Your task to perform on an android device: What is the recent news? Image 0: 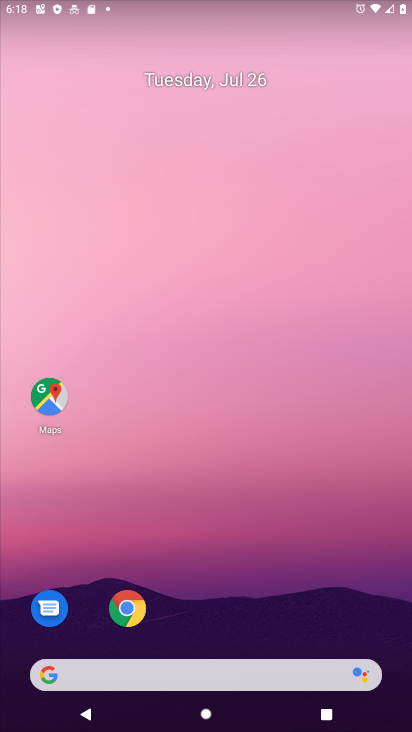
Step 0: press home button
Your task to perform on an android device: What is the recent news? Image 1: 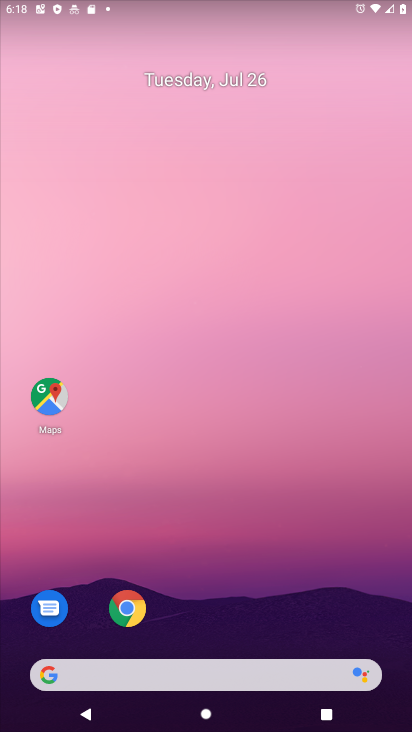
Step 1: click (55, 675)
Your task to perform on an android device: What is the recent news? Image 2: 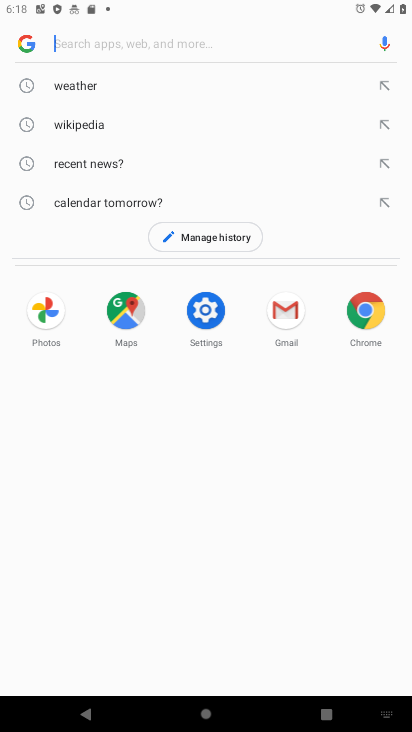
Step 2: click (87, 158)
Your task to perform on an android device: What is the recent news? Image 3: 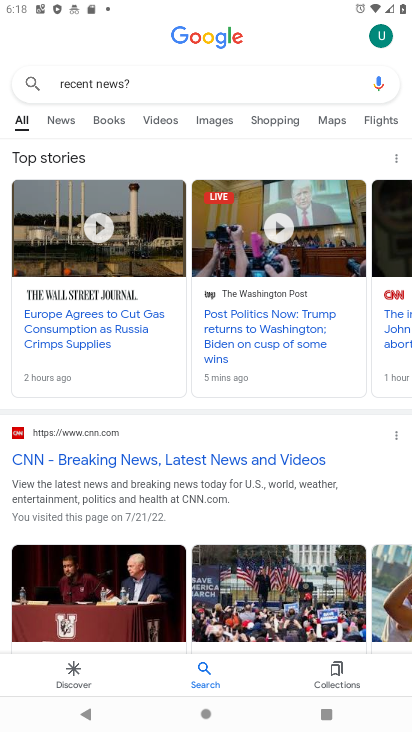
Step 3: task complete